Your task to perform on an android device: Show me popular games on the Play Store Image 0: 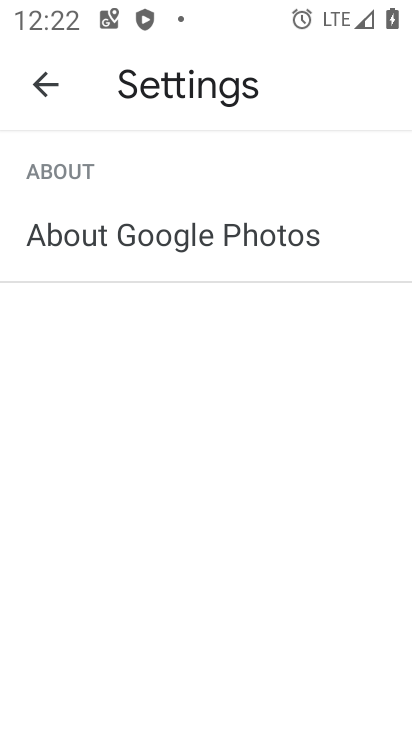
Step 0: press home button
Your task to perform on an android device: Show me popular games on the Play Store Image 1: 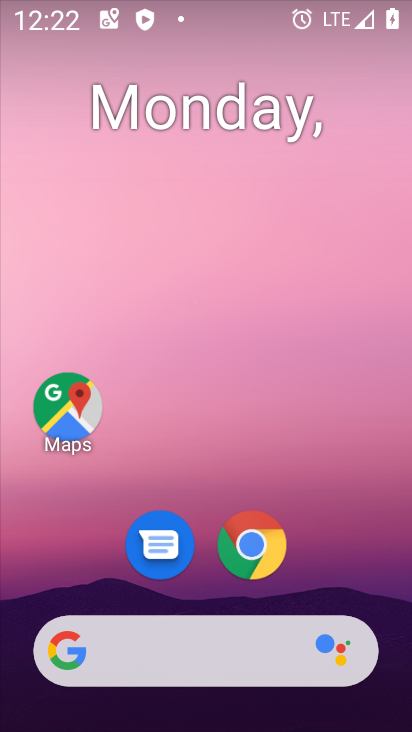
Step 1: drag from (353, 573) to (358, 237)
Your task to perform on an android device: Show me popular games on the Play Store Image 2: 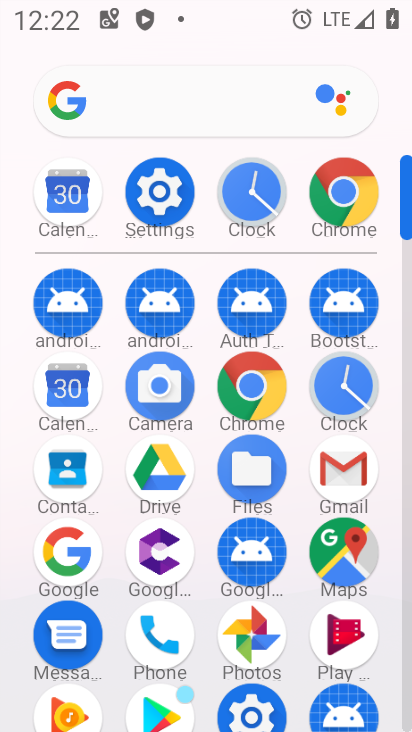
Step 2: drag from (386, 672) to (392, 477)
Your task to perform on an android device: Show me popular games on the Play Store Image 3: 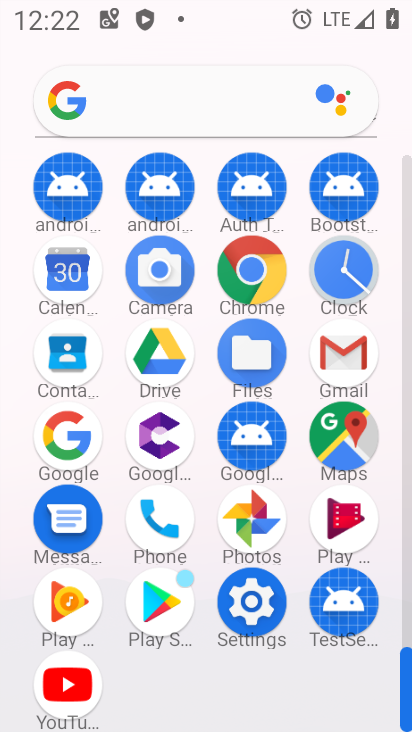
Step 3: click (168, 623)
Your task to perform on an android device: Show me popular games on the Play Store Image 4: 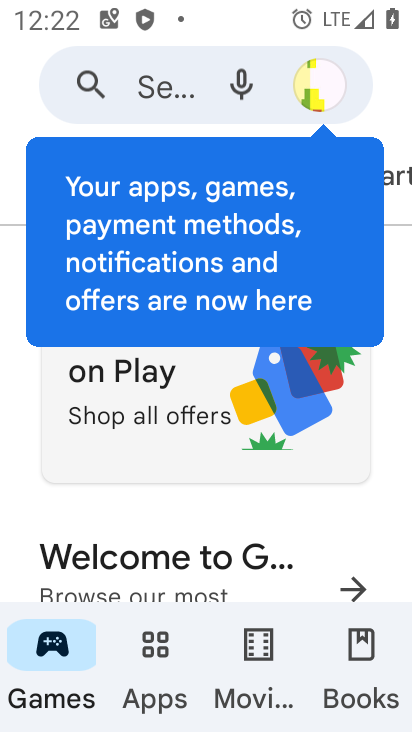
Step 4: task complete